Your task to perform on an android device: delete browsing data in the chrome app Image 0: 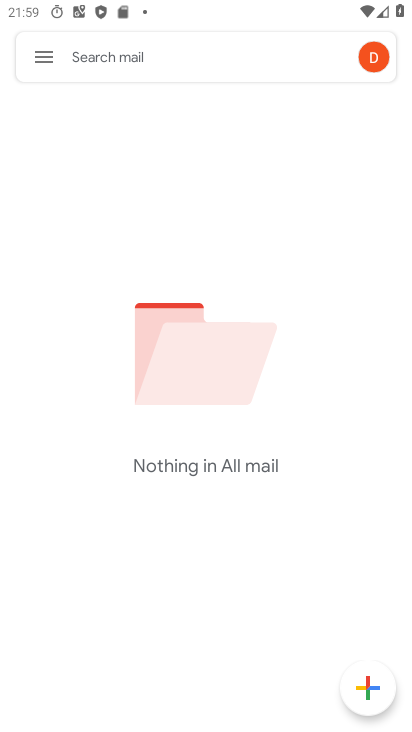
Step 0: press home button
Your task to perform on an android device: delete browsing data in the chrome app Image 1: 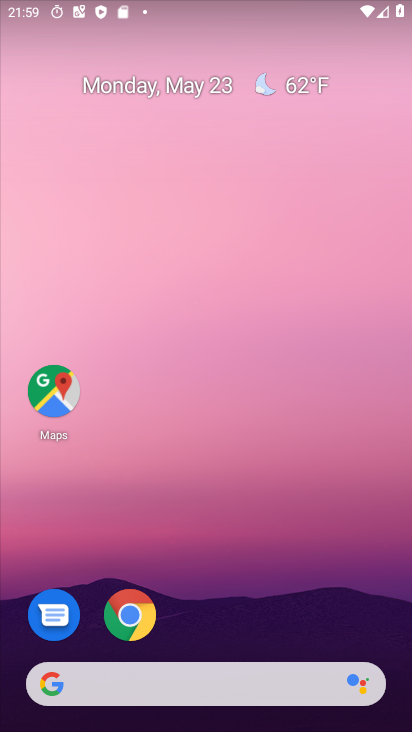
Step 1: click (129, 614)
Your task to perform on an android device: delete browsing data in the chrome app Image 2: 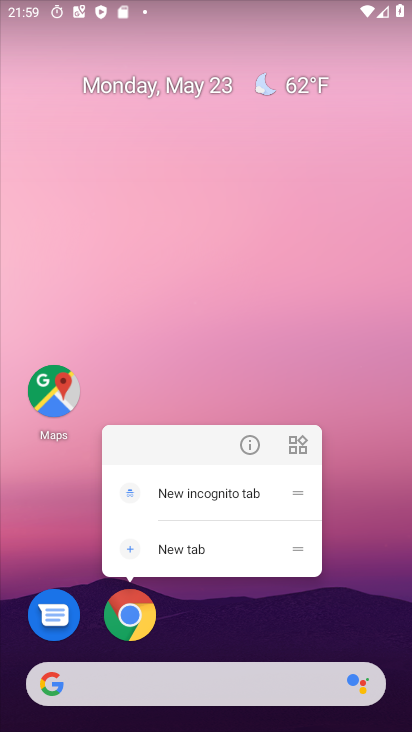
Step 2: click (129, 614)
Your task to perform on an android device: delete browsing data in the chrome app Image 3: 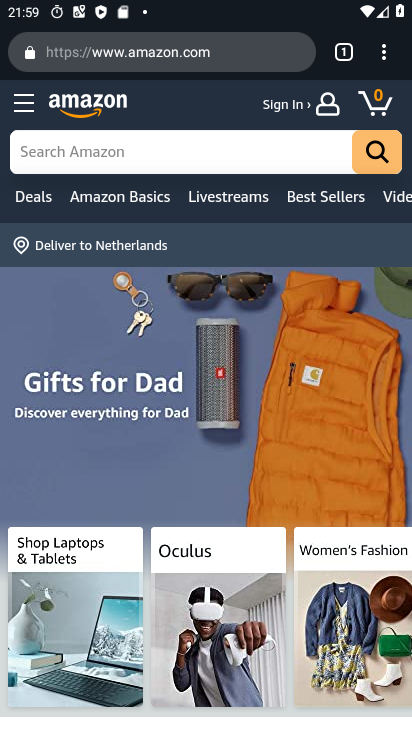
Step 3: click (377, 56)
Your task to perform on an android device: delete browsing data in the chrome app Image 4: 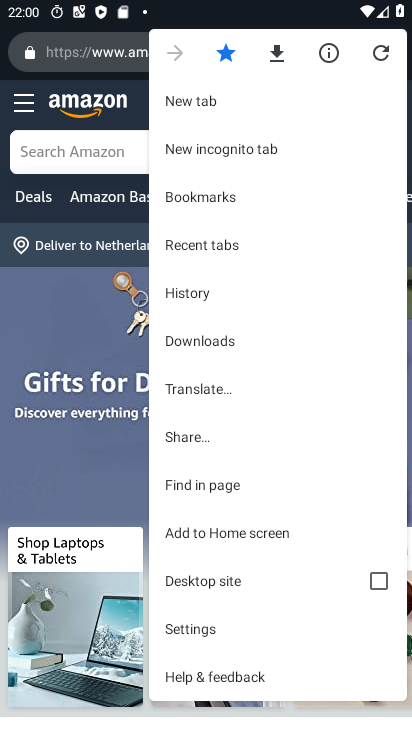
Step 4: click (229, 300)
Your task to perform on an android device: delete browsing data in the chrome app Image 5: 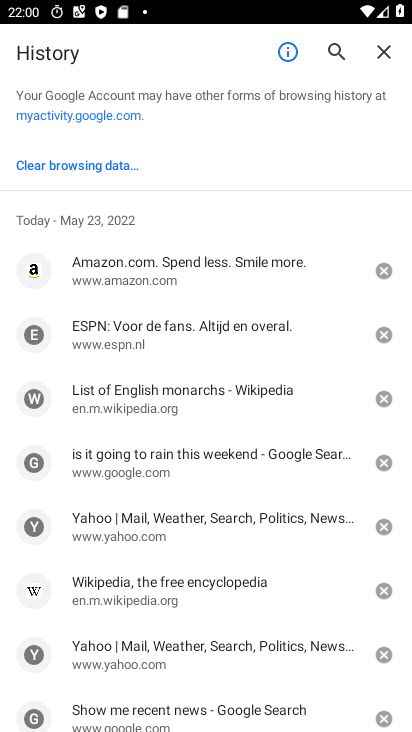
Step 5: click (89, 152)
Your task to perform on an android device: delete browsing data in the chrome app Image 6: 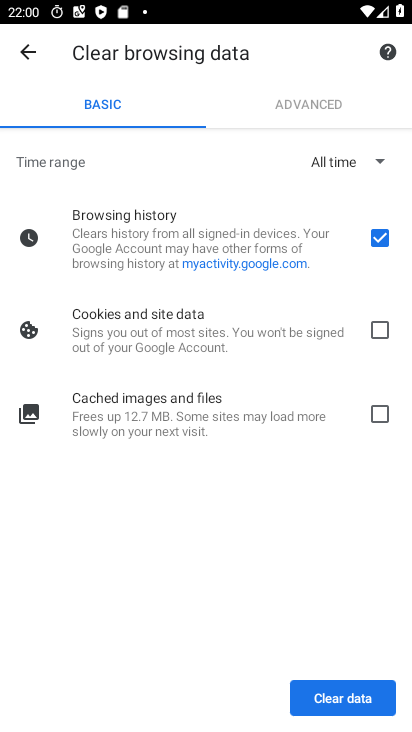
Step 6: click (333, 709)
Your task to perform on an android device: delete browsing data in the chrome app Image 7: 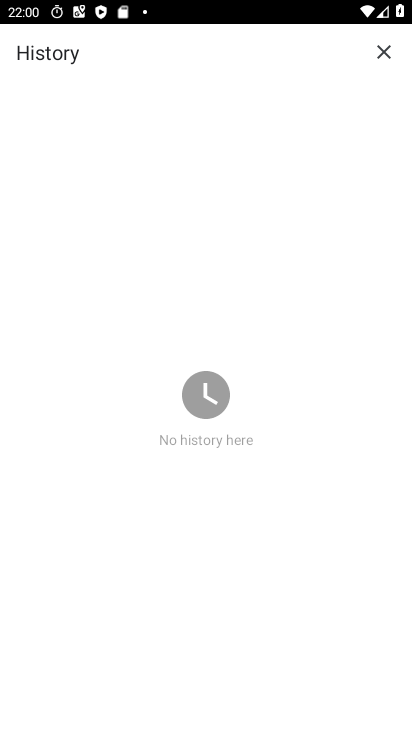
Step 7: task complete